Your task to perform on an android device: Go to Yahoo.com Image 0: 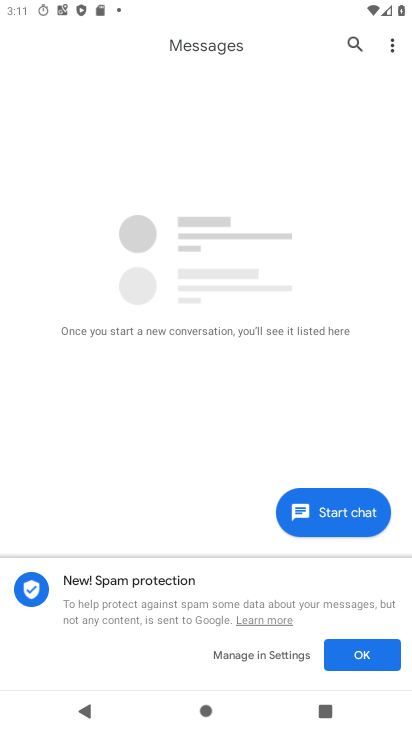
Step 0: press home button
Your task to perform on an android device: Go to Yahoo.com Image 1: 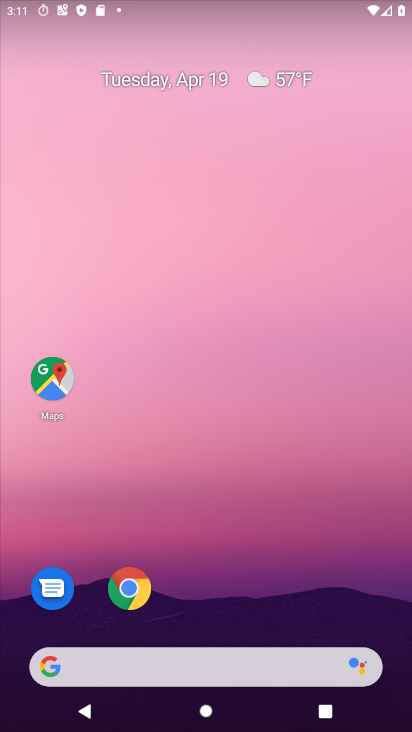
Step 1: drag from (230, 612) to (296, 382)
Your task to perform on an android device: Go to Yahoo.com Image 2: 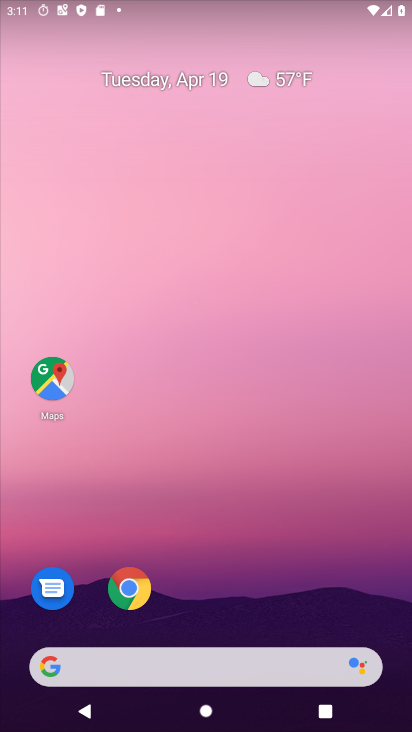
Step 2: drag from (200, 648) to (386, 271)
Your task to perform on an android device: Go to Yahoo.com Image 3: 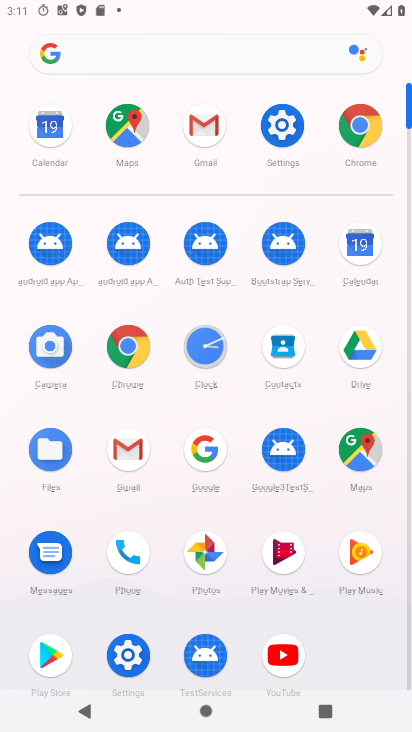
Step 3: click (132, 346)
Your task to perform on an android device: Go to Yahoo.com Image 4: 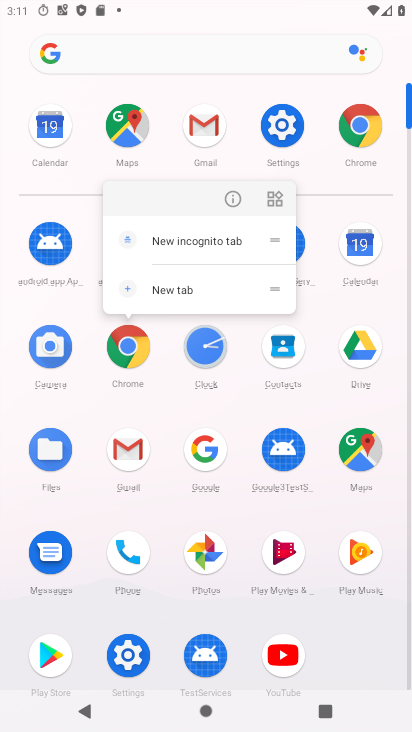
Step 4: click (237, 201)
Your task to perform on an android device: Go to Yahoo.com Image 5: 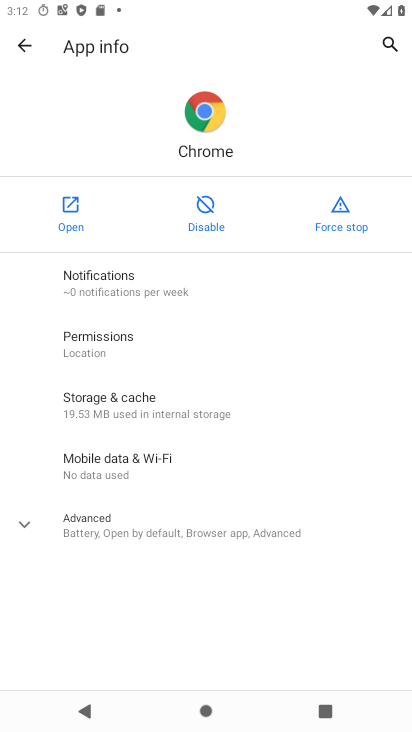
Step 5: click (74, 210)
Your task to perform on an android device: Go to Yahoo.com Image 6: 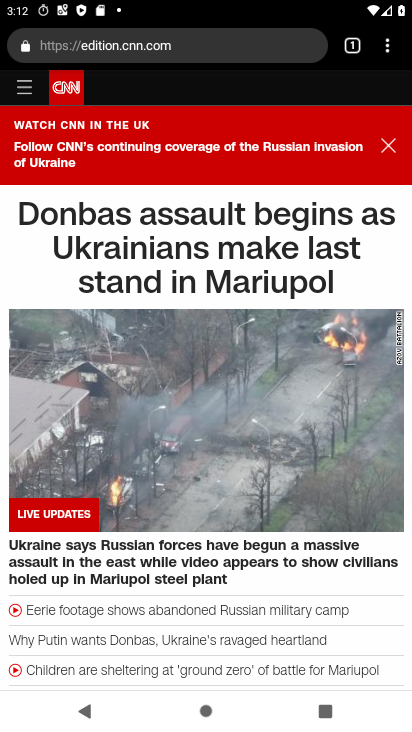
Step 6: drag from (177, 227) to (239, 406)
Your task to perform on an android device: Go to Yahoo.com Image 7: 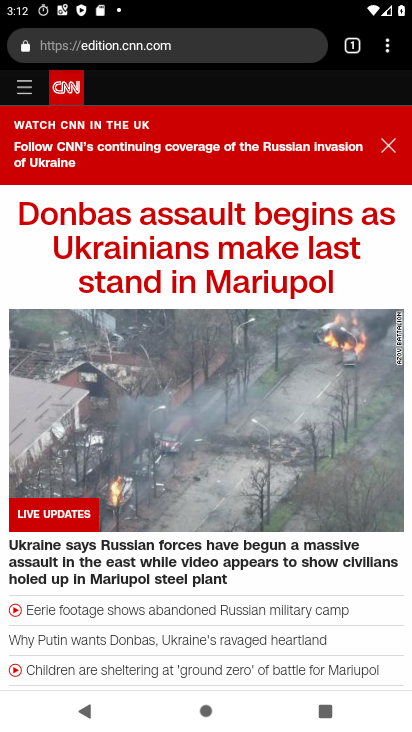
Step 7: click (184, 39)
Your task to perform on an android device: Go to Yahoo.com Image 8: 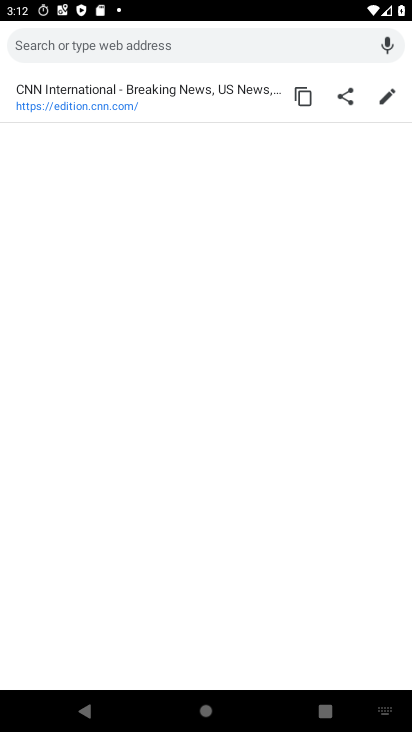
Step 8: type "yahoo.com"
Your task to perform on an android device: Go to Yahoo.com Image 9: 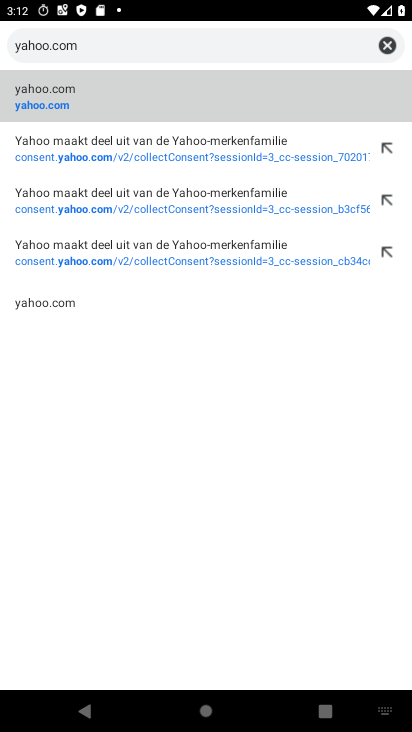
Step 9: click (26, 95)
Your task to perform on an android device: Go to Yahoo.com Image 10: 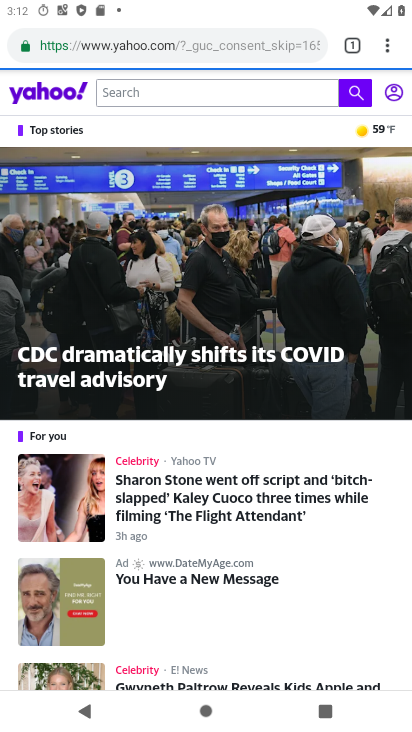
Step 10: task complete